Your task to perform on an android device: change the clock style Image 0: 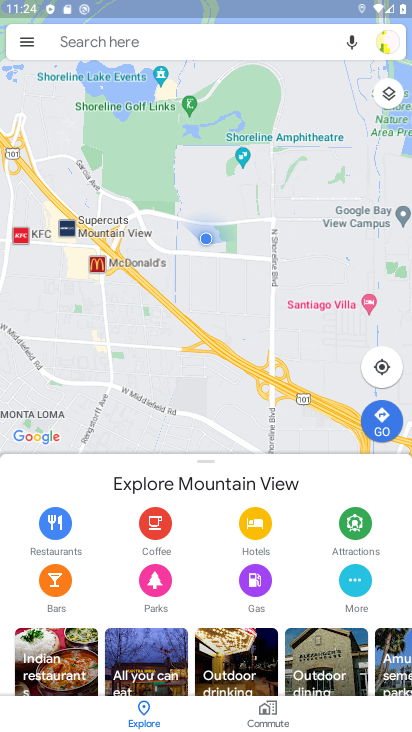
Step 0: press home button
Your task to perform on an android device: change the clock style Image 1: 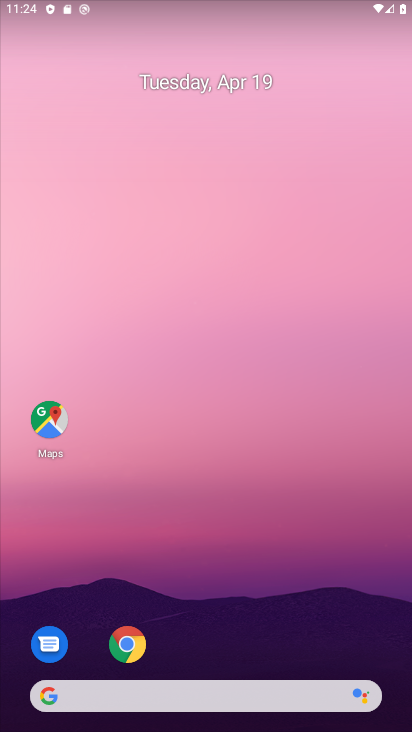
Step 1: drag from (212, 716) to (217, 209)
Your task to perform on an android device: change the clock style Image 2: 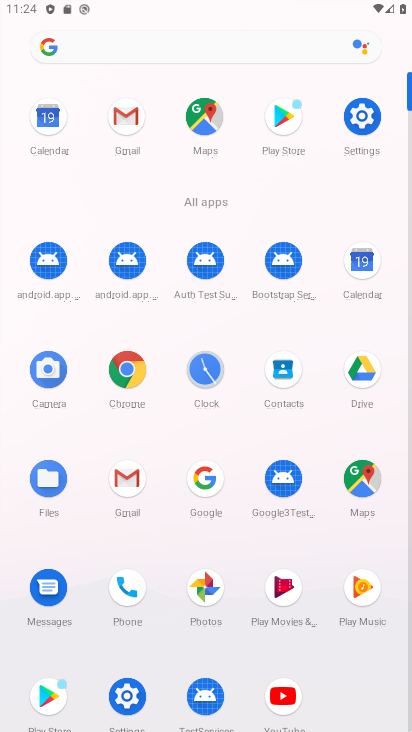
Step 2: click (203, 371)
Your task to perform on an android device: change the clock style Image 3: 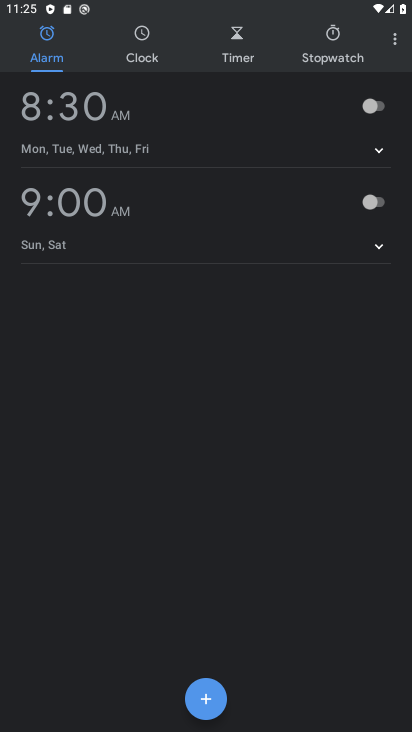
Step 3: click (395, 44)
Your task to perform on an android device: change the clock style Image 4: 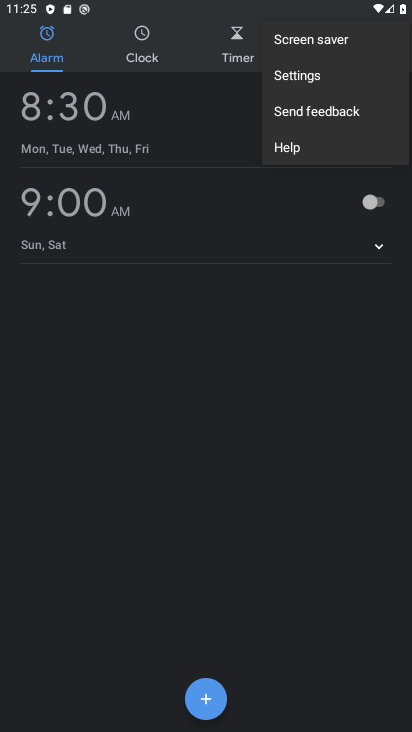
Step 4: click (302, 78)
Your task to perform on an android device: change the clock style Image 5: 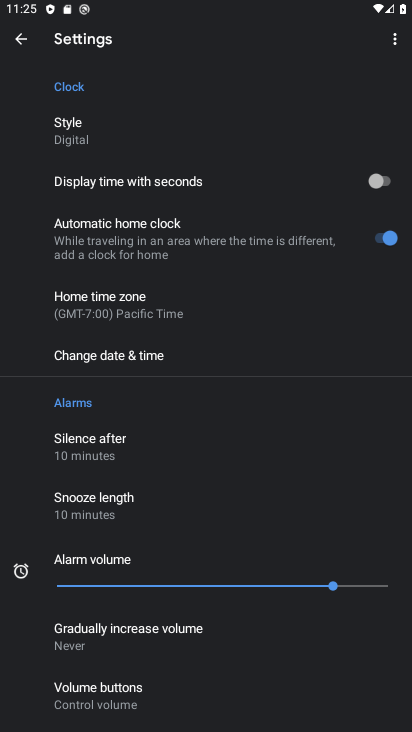
Step 5: click (67, 132)
Your task to perform on an android device: change the clock style Image 6: 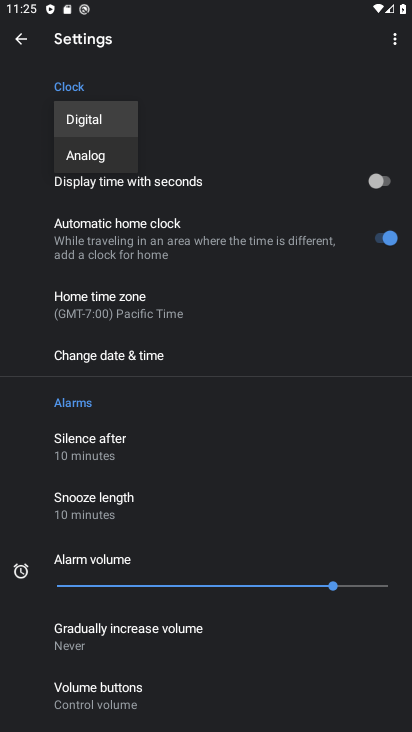
Step 6: click (83, 159)
Your task to perform on an android device: change the clock style Image 7: 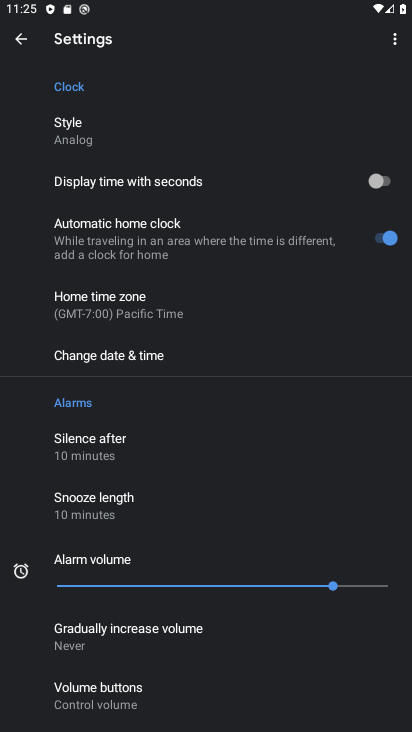
Step 7: task complete